Your task to perform on an android device: Go to internet settings Image 0: 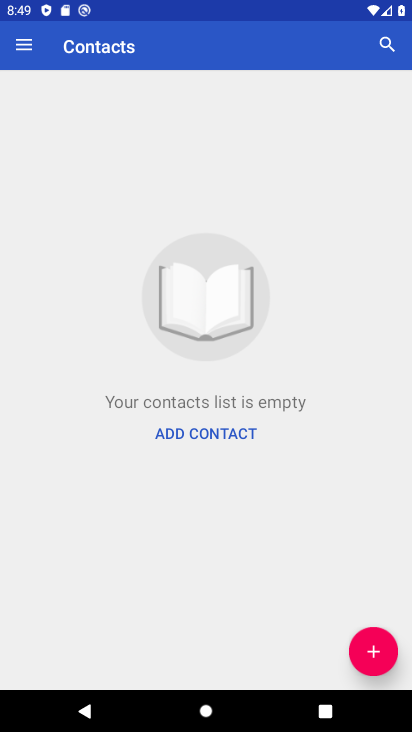
Step 0: press home button
Your task to perform on an android device: Go to internet settings Image 1: 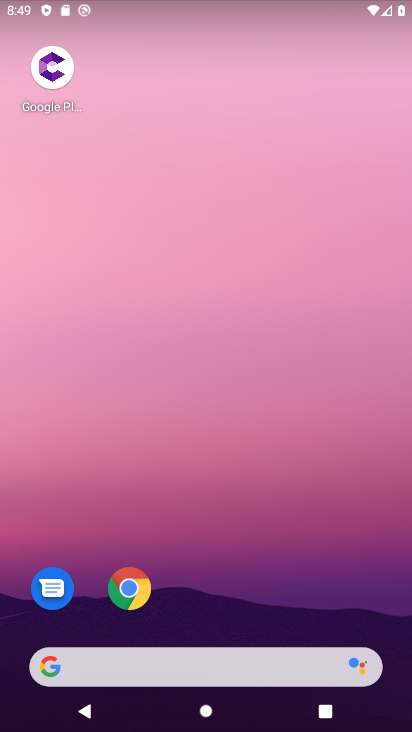
Step 1: drag from (237, 655) to (347, 61)
Your task to perform on an android device: Go to internet settings Image 2: 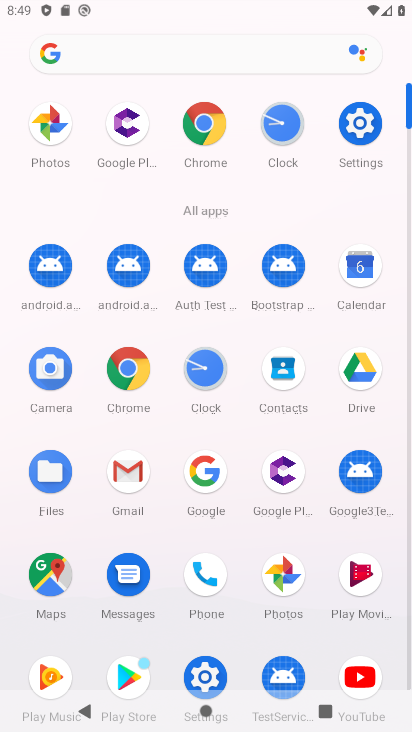
Step 2: click (353, 130)
Your task to perform on an android device: Go to internet settings Image 3: 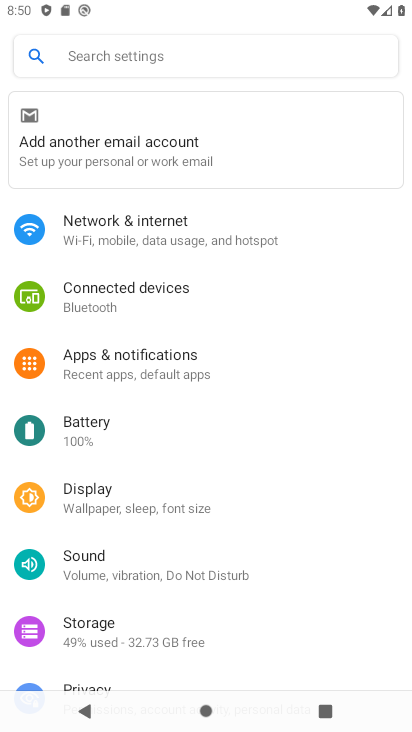
Step 3: click (177, 237)
Your task to perform on an android device: Go to internet settings Image 4: 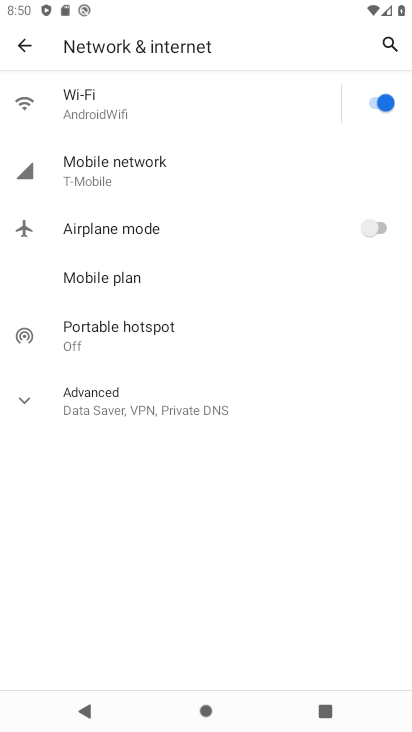
Step 4: task complete